Your task to perform on an android device: Go to Google Image 0: 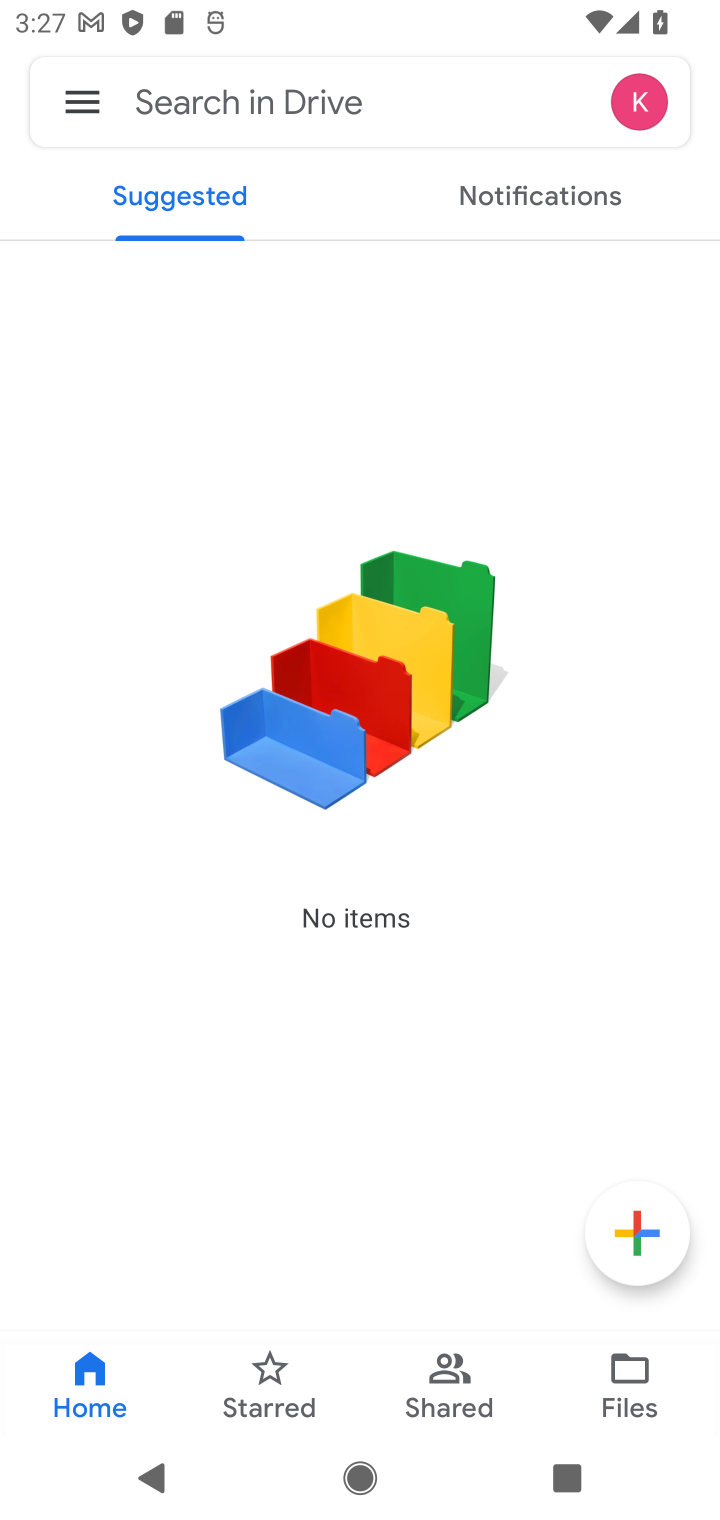
Step 0: press home button
Your task to perform on an android device: Go to Google Image 1: 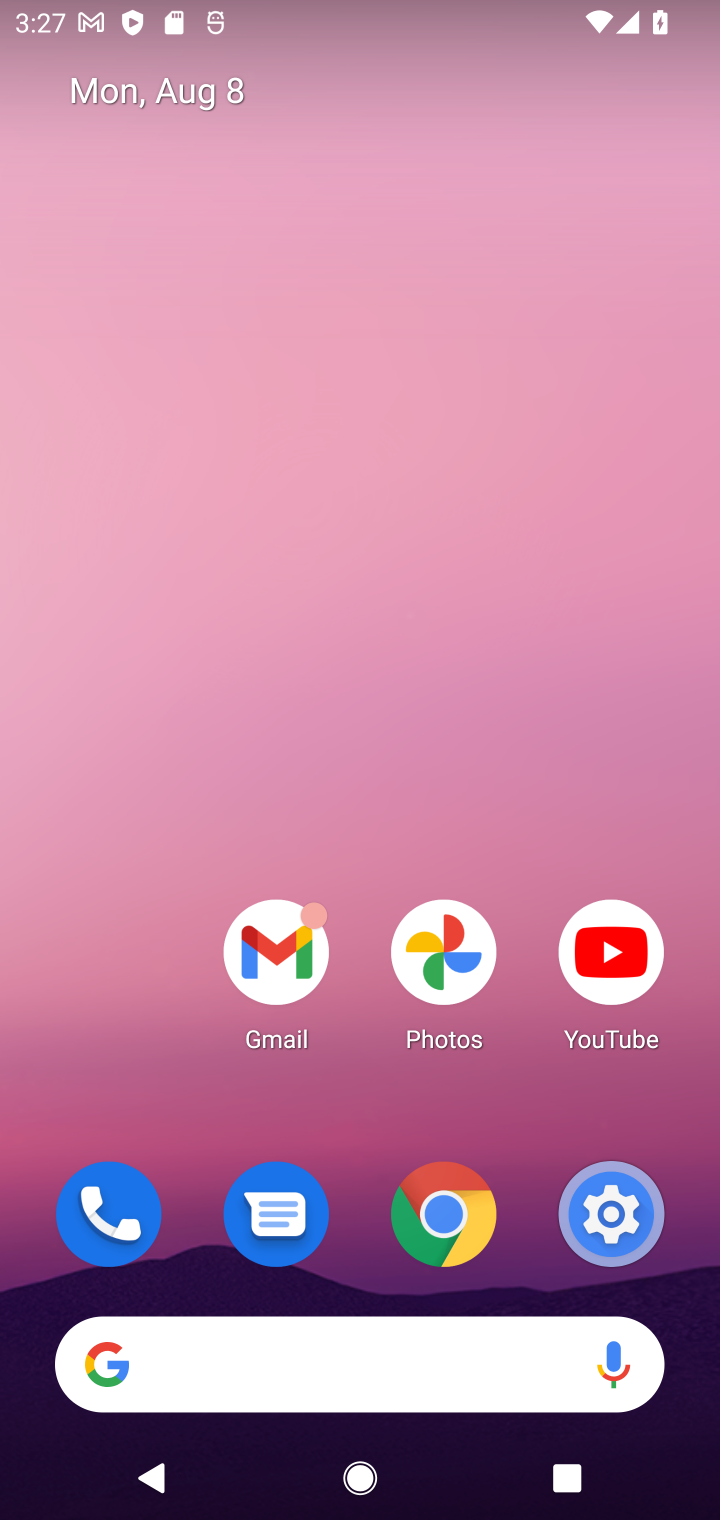
Step 1: drag from (368, 1221) to (350, 380)
Your task to perform on an android device: Go to Google Image 2: 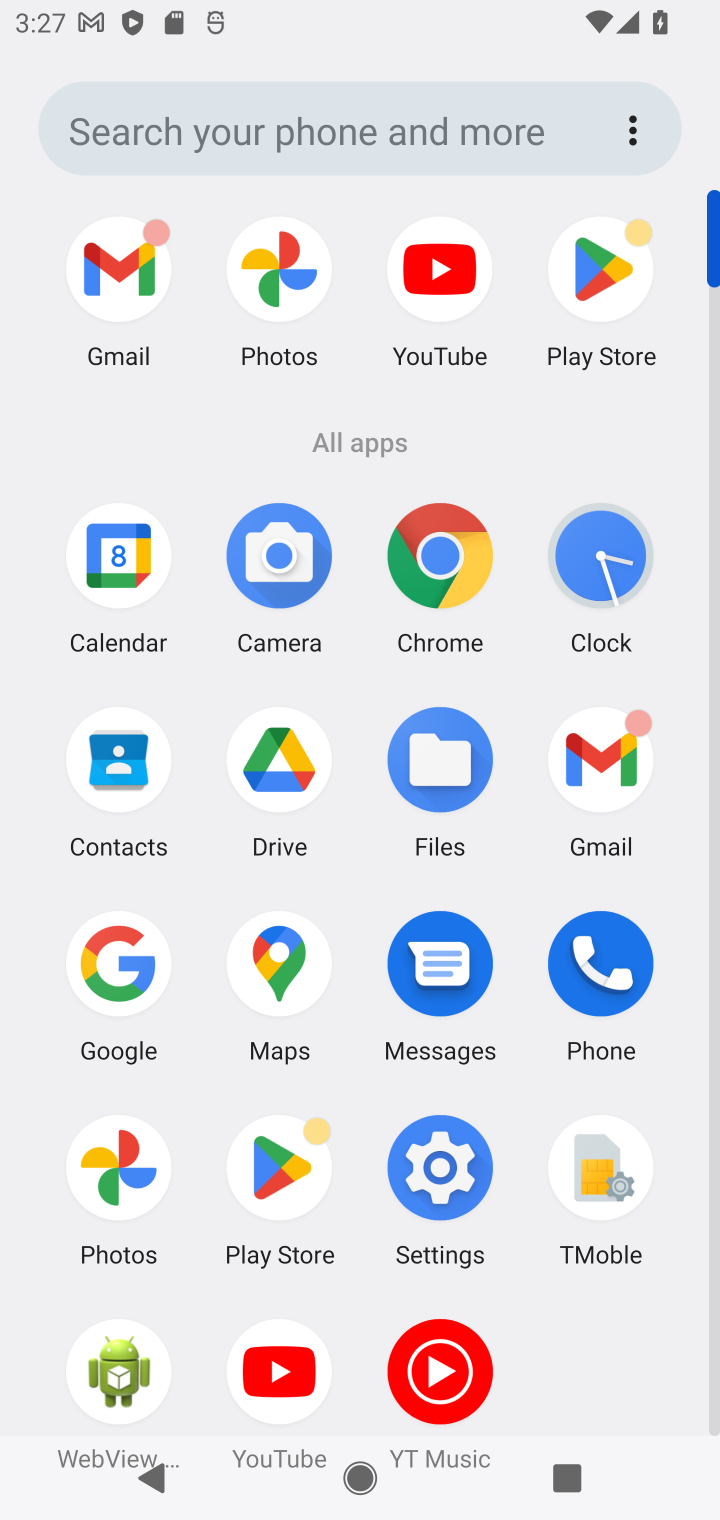
Step 2: click (132, 963)
Your task to perform on an android device: Go to Google Image 3: 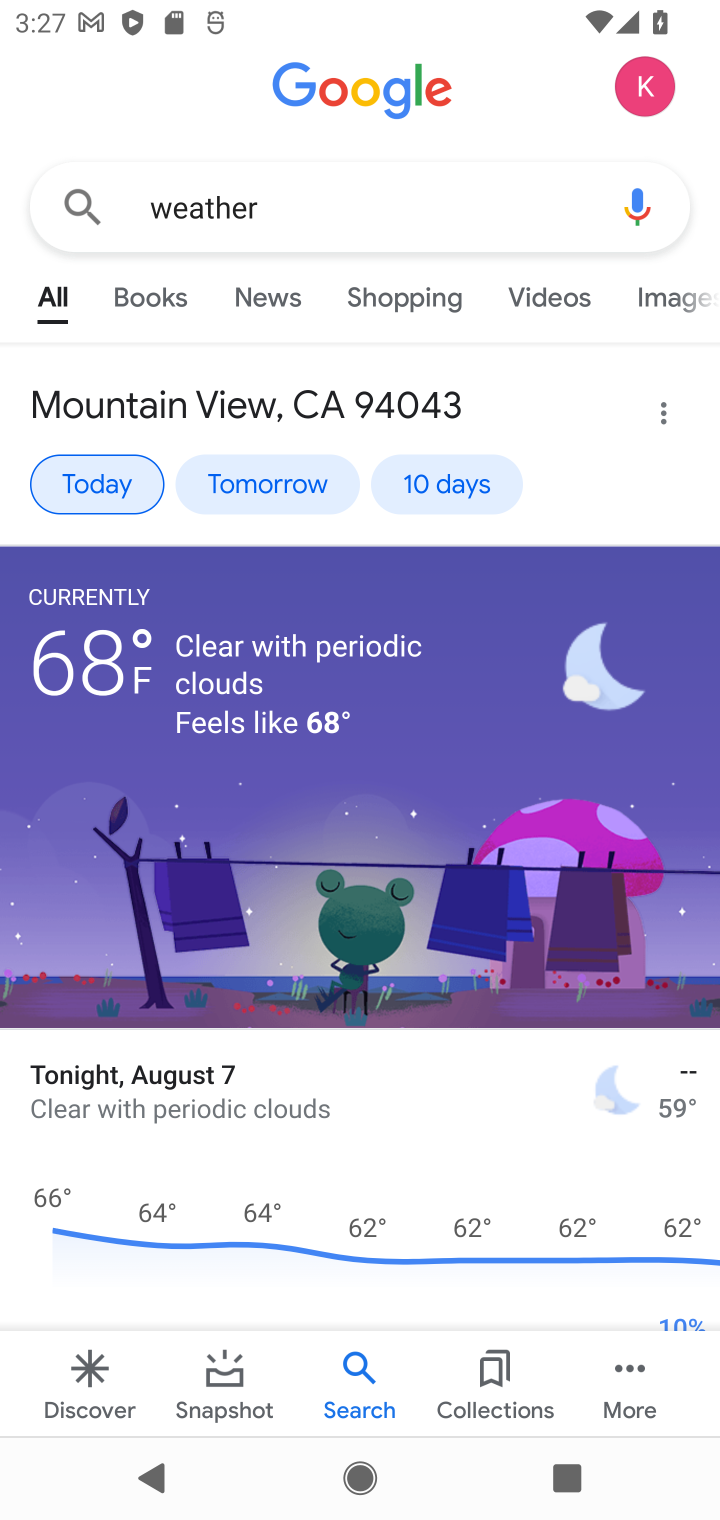
Step 3: task complete